Your task to perform on an android device: turn on the 12-hour format for clock Image 0: 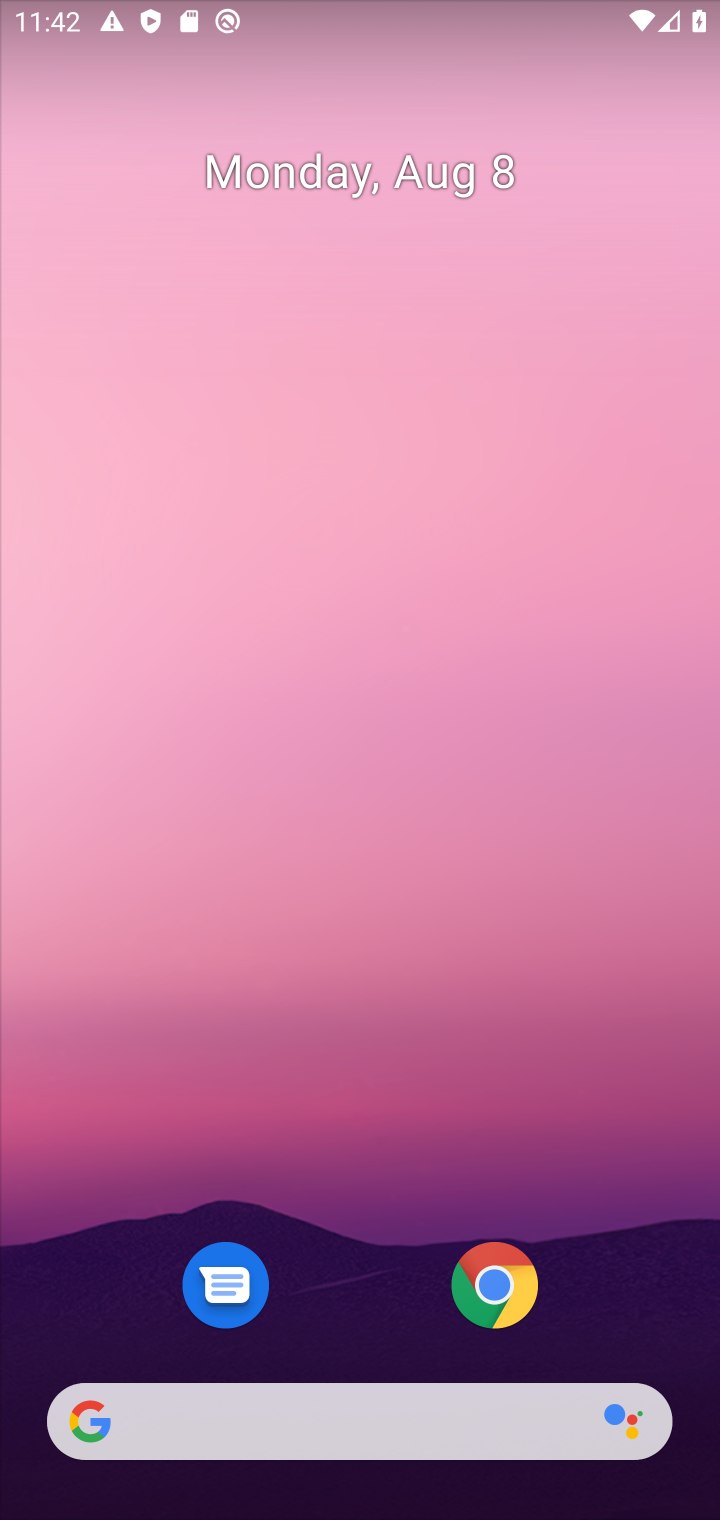
Step 0: click (322, 536)
Your task to perform on an android device: turn on the 12-hour format for clock Image 1: 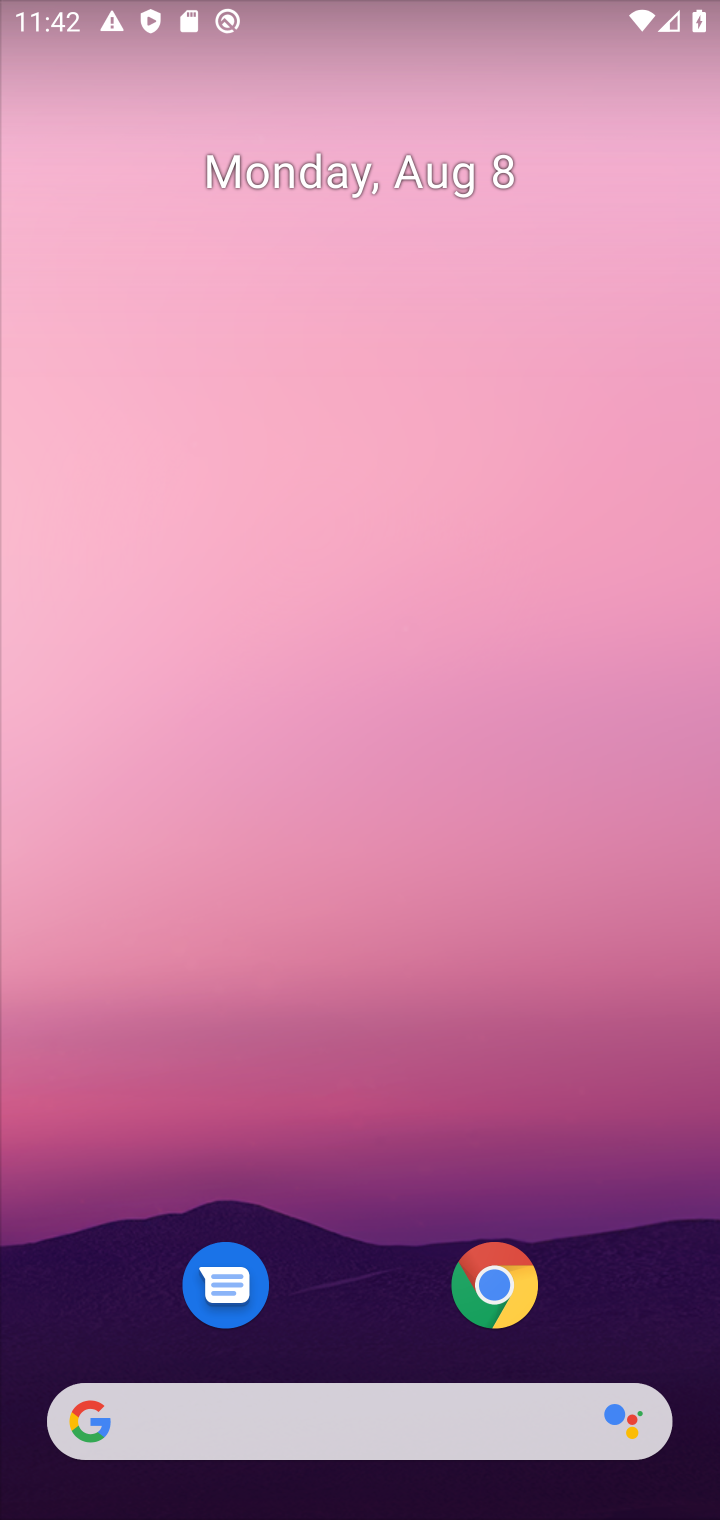
Step 1: drag from (346, 1208) to (374, 679)
Your task to perform on an android device: turn on the 12-hour format for clock Image 2: 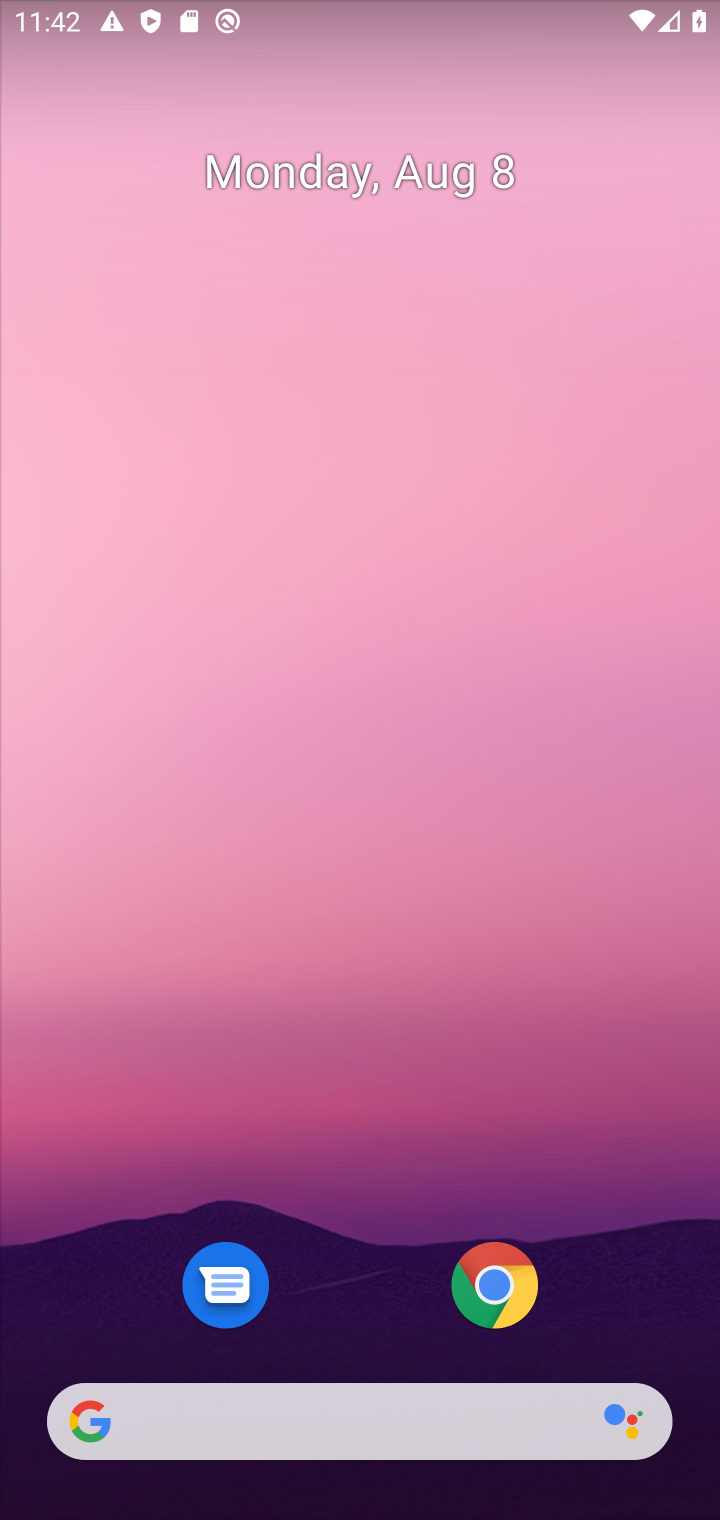
Step 2: drag from (328, 1275) to (345, 947)
Your task to perform on an android device: turn on the 12-hour format for clock Image 3: 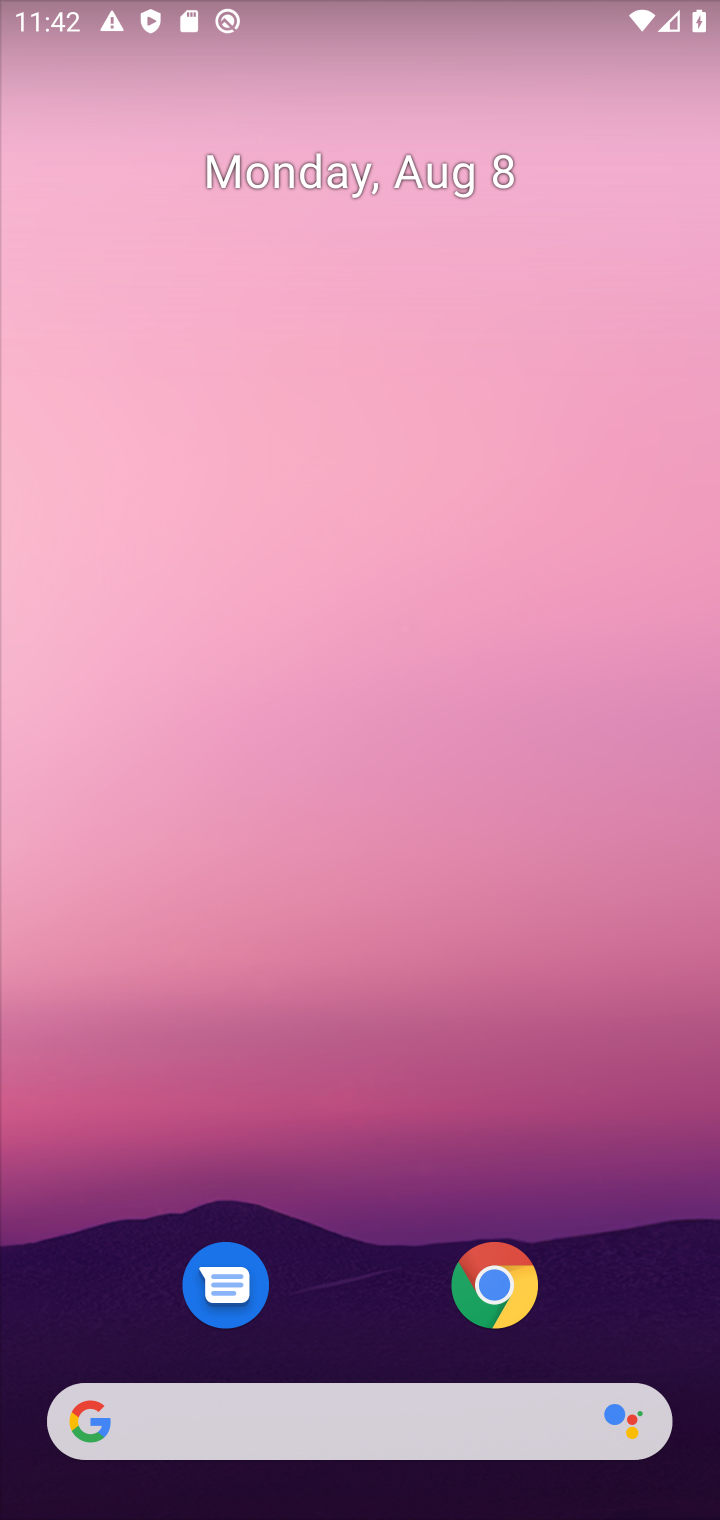
Step 3: drag from (419, 1035) to (245, 6)
Your task to perform on an android device: turn on the 12-hour format for clock Image 4: 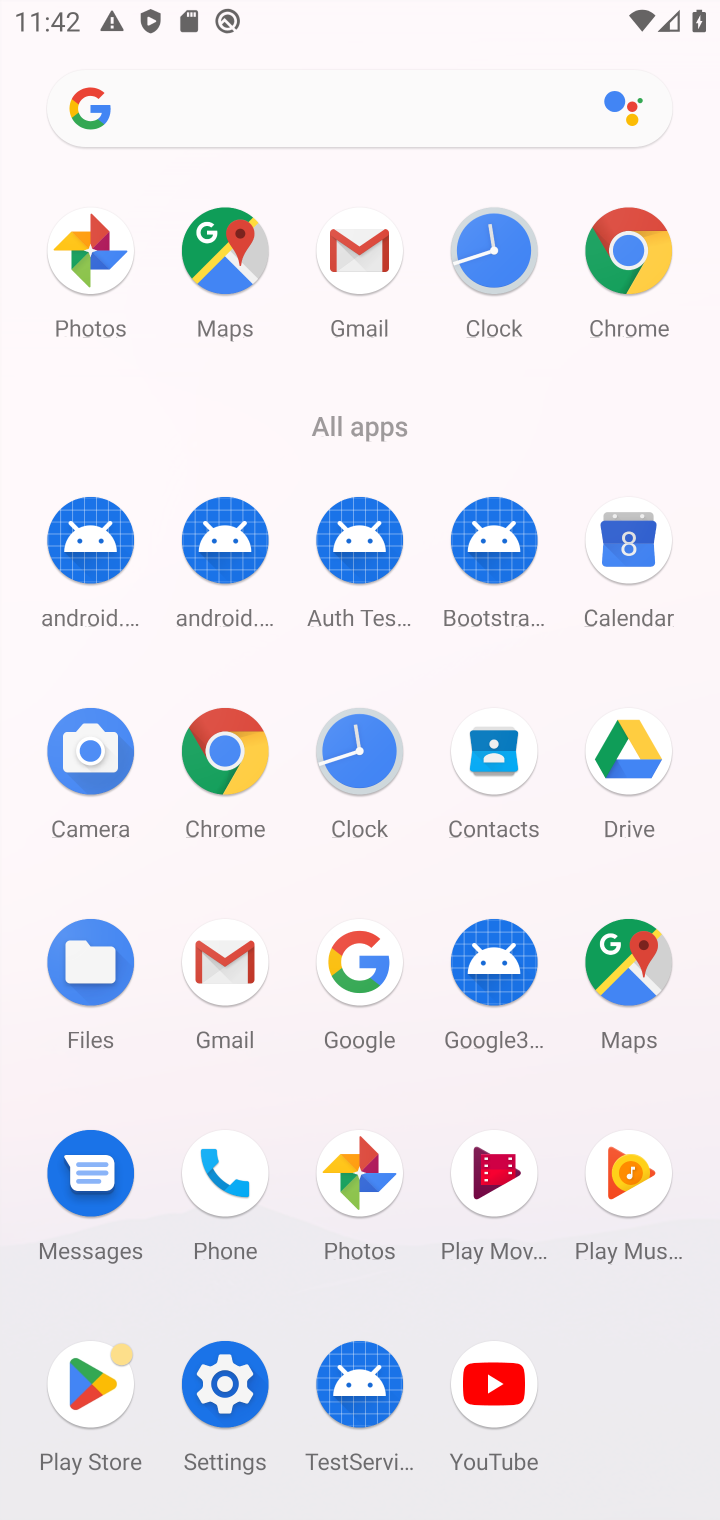
Step 4: click (359, 749)
Your task to perform on an android device: turn on the 12-hour format for clock Image 5: 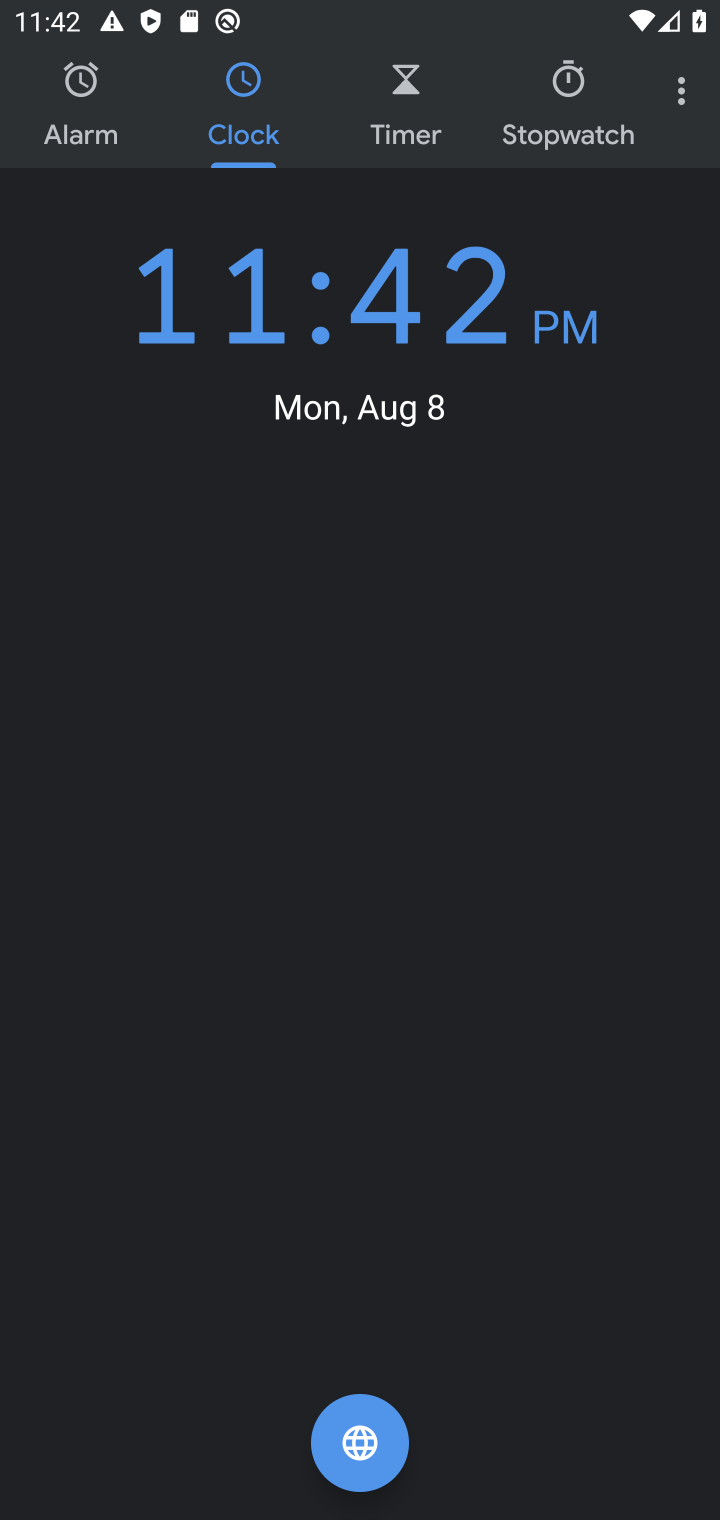
Step 5: drag from (426, 1075) to (436, 790)
Your task to perform on an android device: turn on the 12-hour format for clock Image 6: 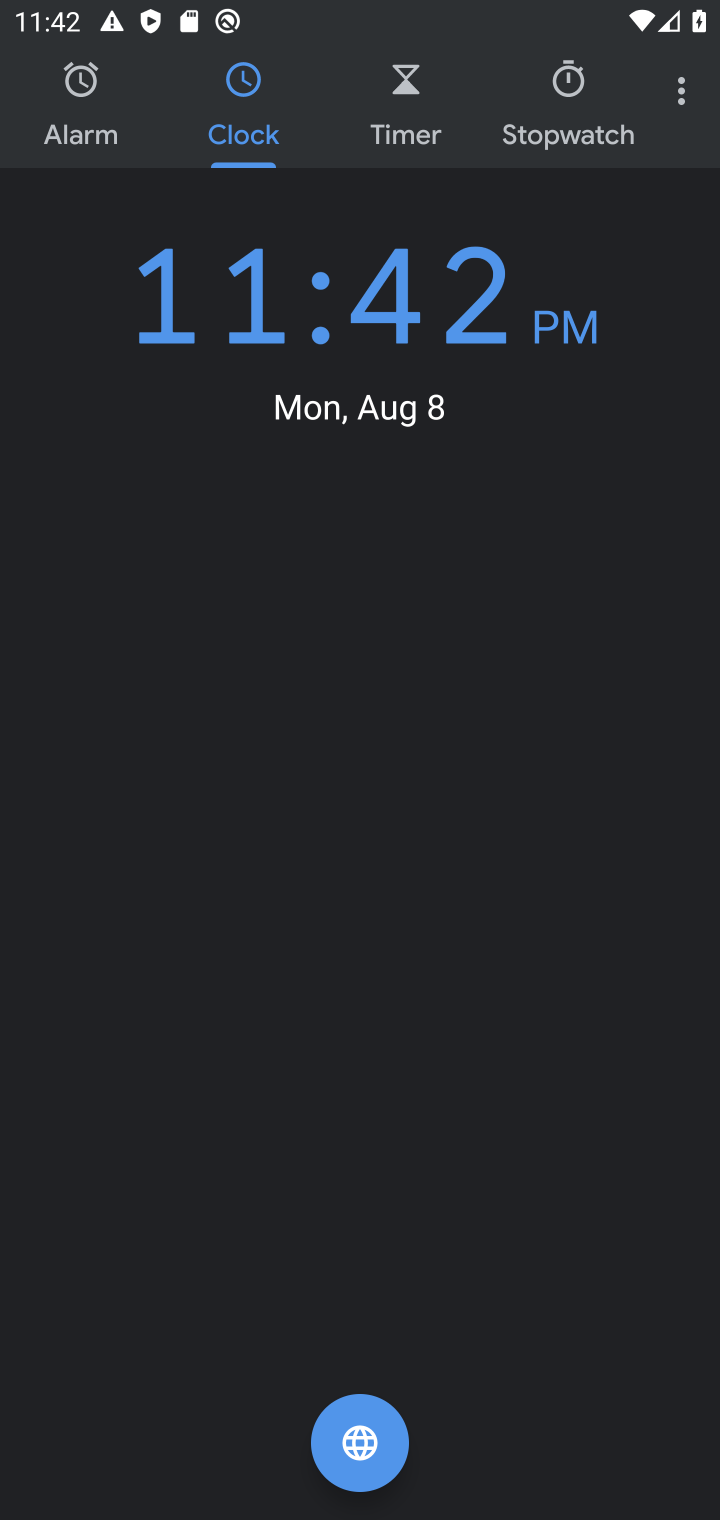
Step 6: drag from (684, 82) to (492, 185)
Your task to perform on an android device: turn on the 12-hour format for clock Image 7: 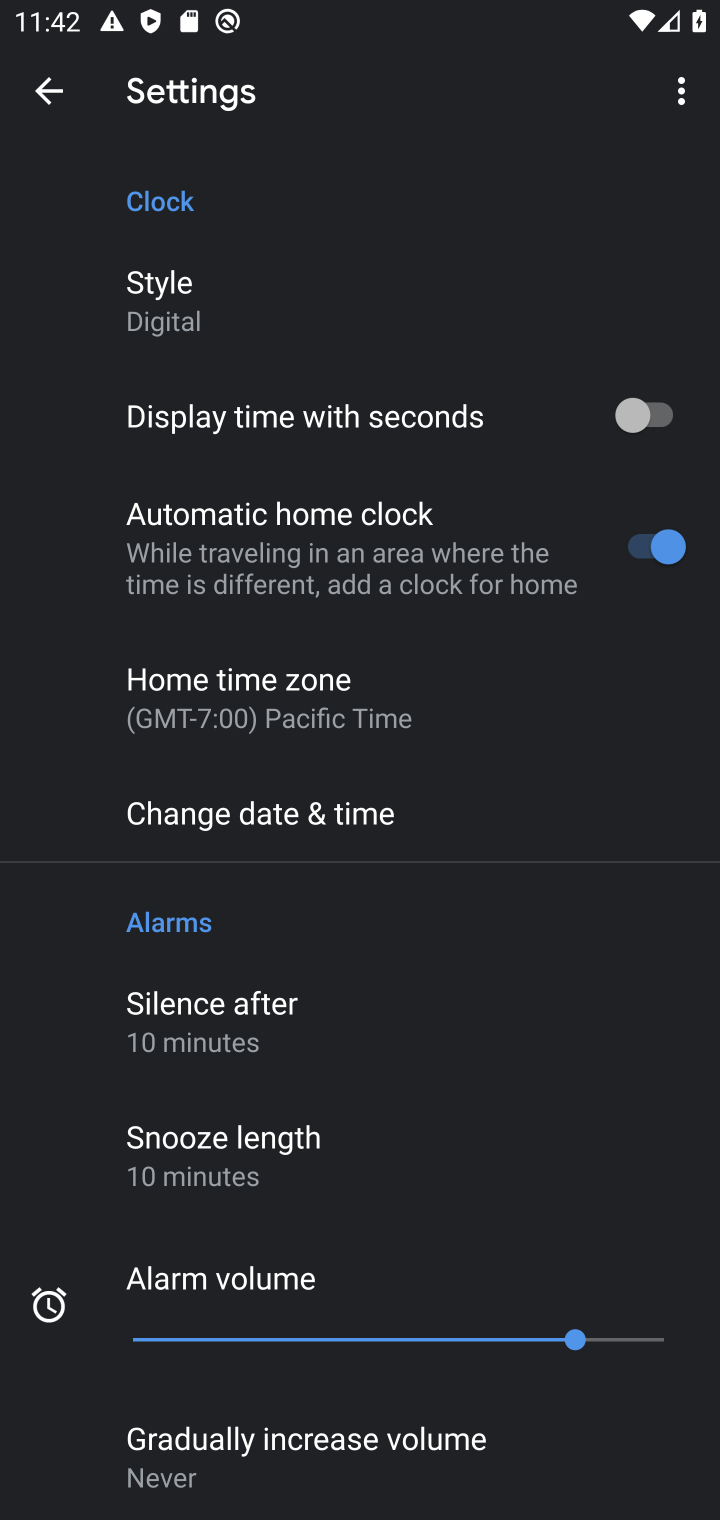
Step 7: click (234, 835)
Your task to perform on an android device: turn on the 12-hour format for clock Image 8: 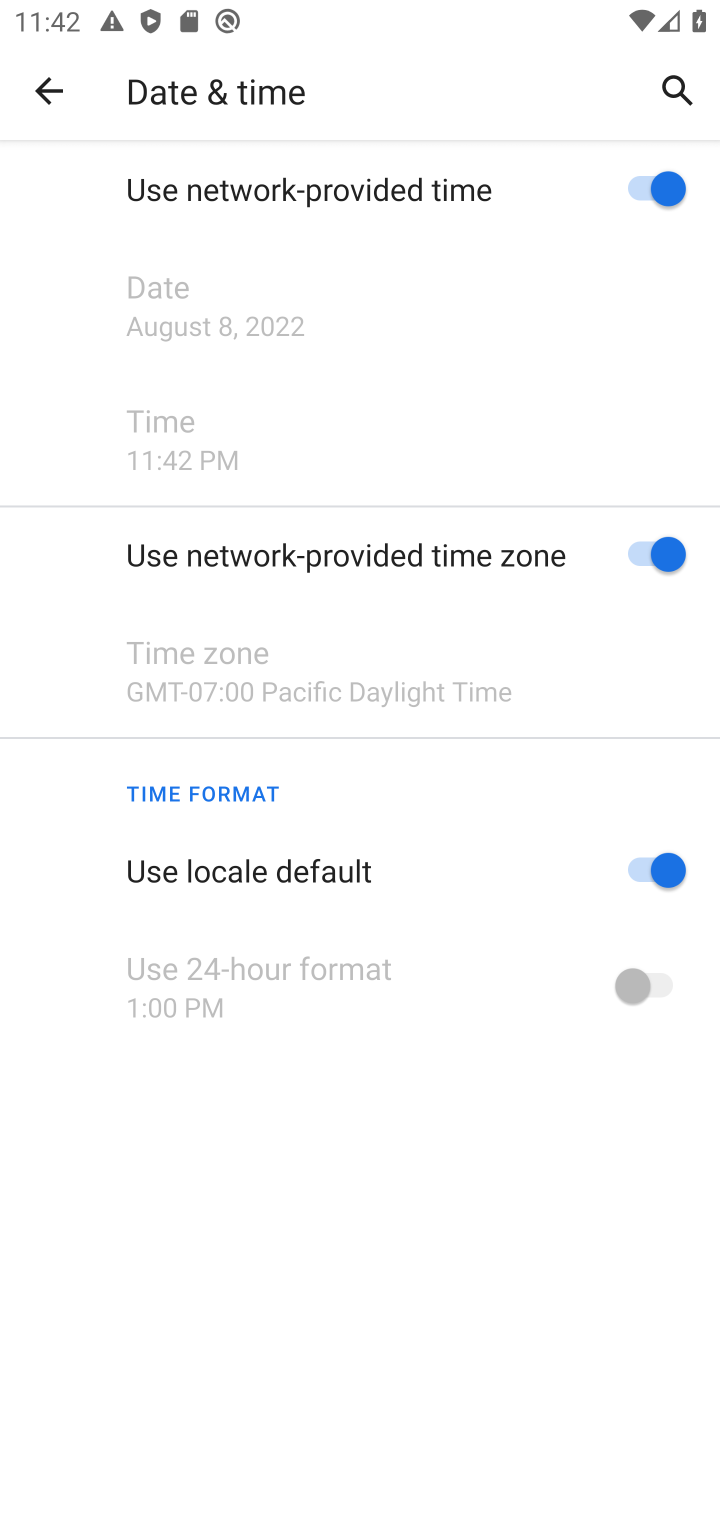
Step 8: task complete